Your task to perform on an android device: change text size in settings app Image 0: 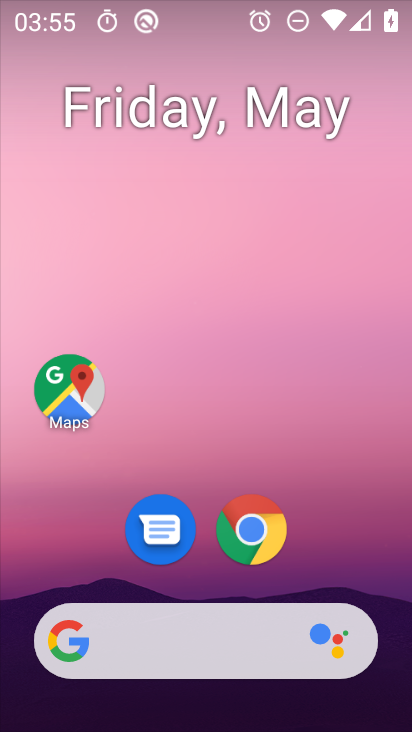
Step 0: drag from (400, 687) to (403, 331)
Your task to perform on an android device: change text size in settings app Image 1: 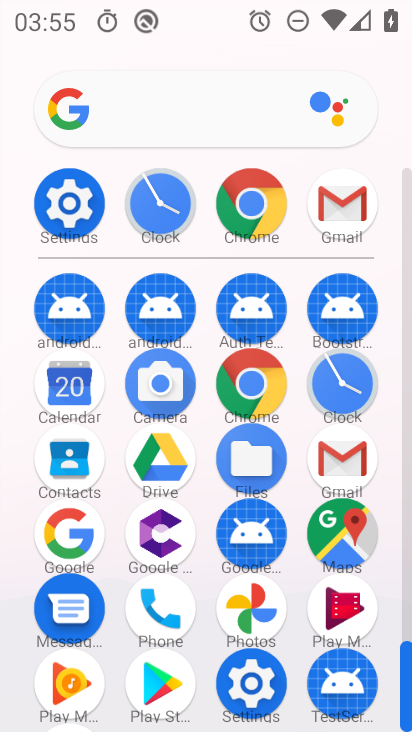
Step 1: click (256, 682)
Your task to perform on an android device: change text size in settings app Image 2: 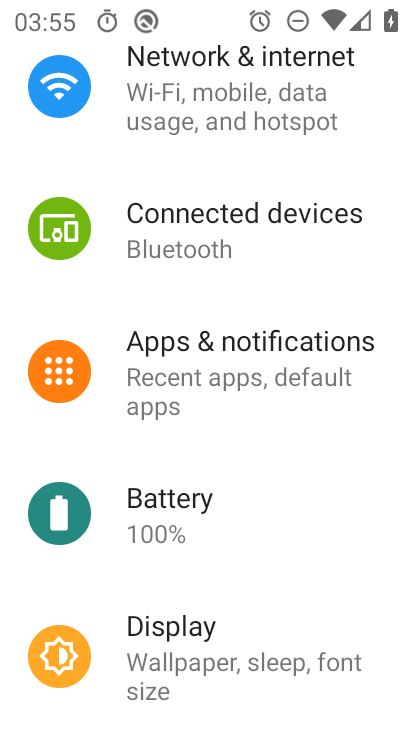
Step 2: click (182, 636)
Your task to perform on an android device: change text size in settings app Image 3: 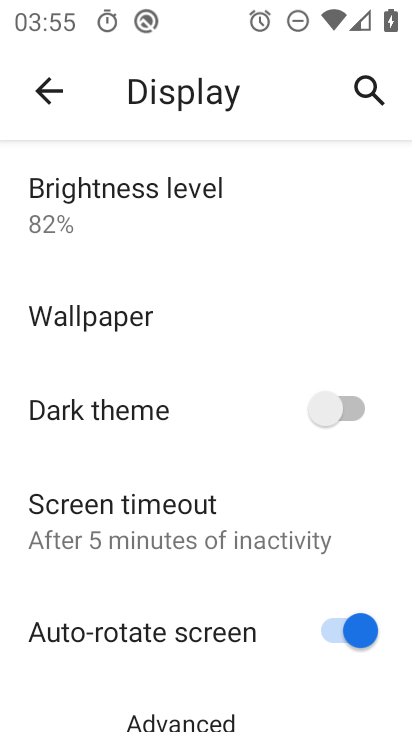
Step 3: drag from (250, 680) to (260, 345)
Your task to perform on an android device: change text size in settings app Image 4: 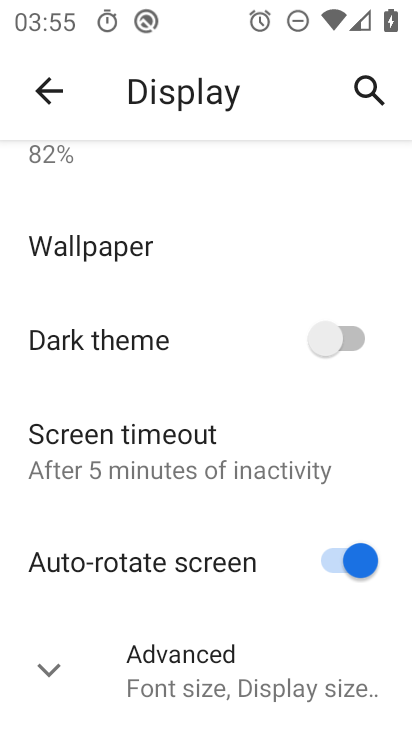
Step 4: click (51, 667)
Your task to perform on an android device: change text size in settings app Image 5: 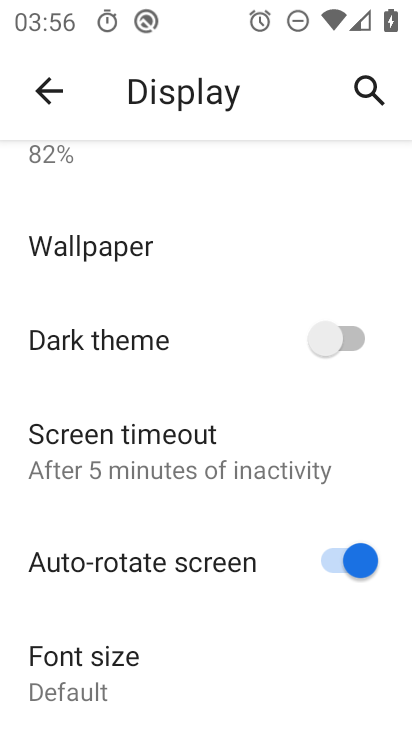
Step 5: click (91, 671)
Your task to perform on an android device: change text size in settings app Image 6: 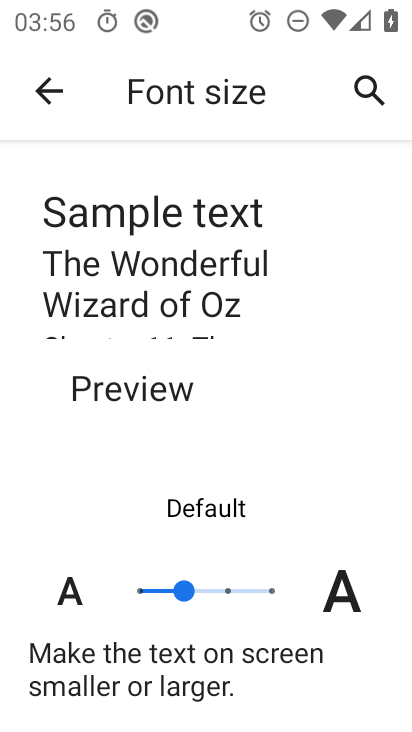
Step 6: click (159, 589)
Your task to perform on an android device: change text size in settings app Image 7: 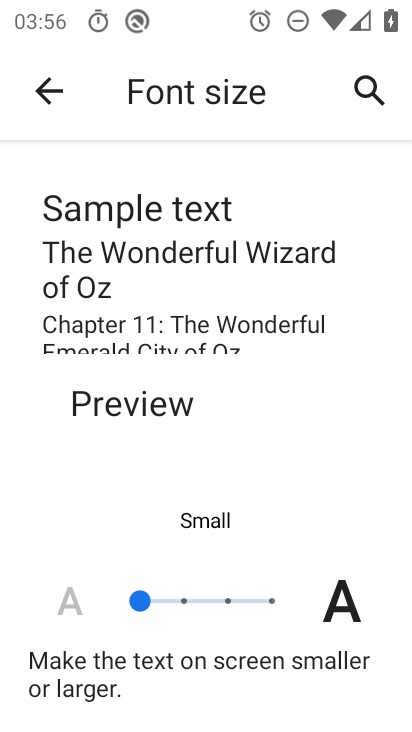
Step 7: task complete